Your task to perform on an android device: turn on sleep mode Image 0: 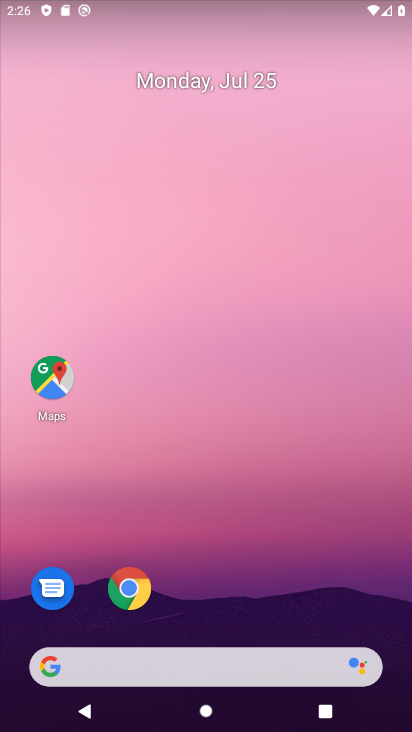
Step 0: drag from (302, 580) to (233, 27)
Your task to perform on an android device: turn on sleep mode Image 1: 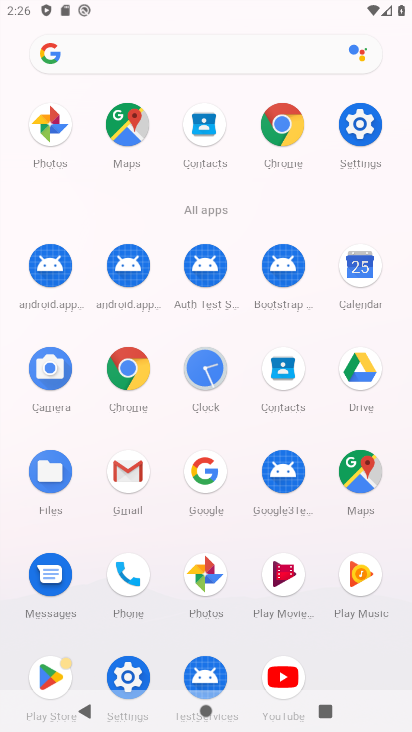
Step 1: click (372, 114)
Your task to perform on an android device: turn on sleep mode Image 2: 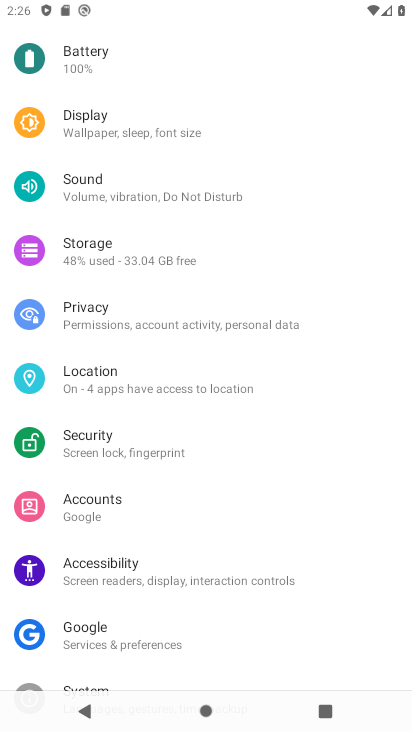
Step 2: click (133, 134)
Your task to perform on an android device: turn on sleep mode Image 3: 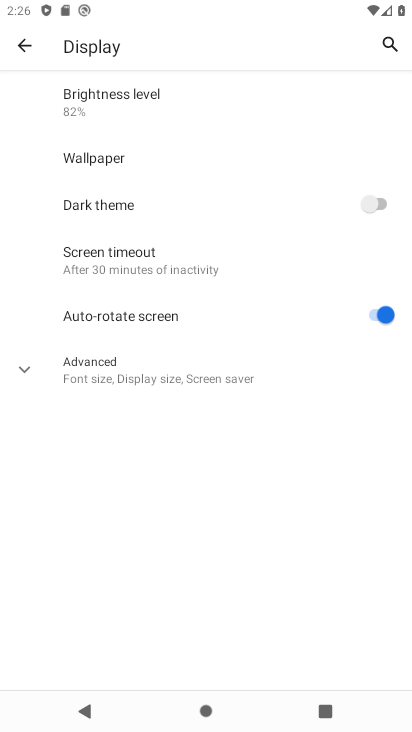
Step 3: click (136, 251)
Your task to perform on an android device: turn on sleep mode Image 4: 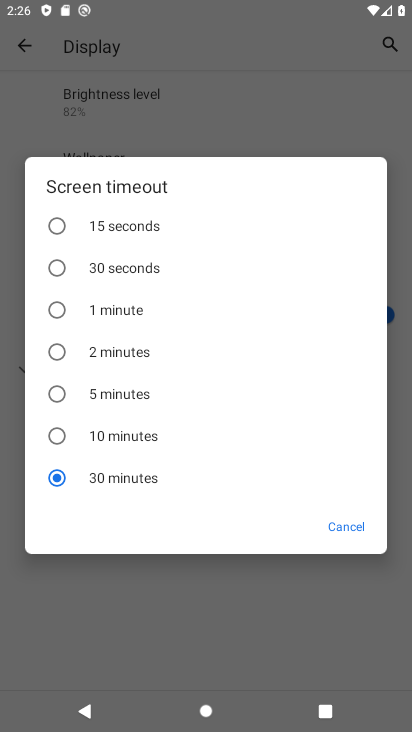
Step 4: task complete